Your task to perform on an android device: Set the phone to "Do not disturb". Image 0: 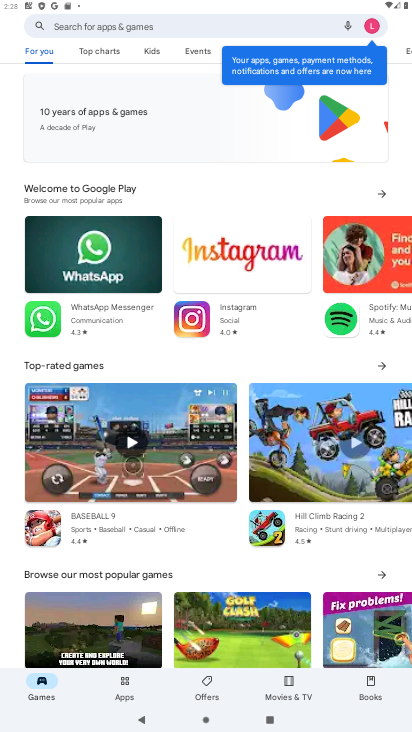
Step 0: press home button
Your task to perform on an android device: Set the phone to "Do not disturb". Image 1: 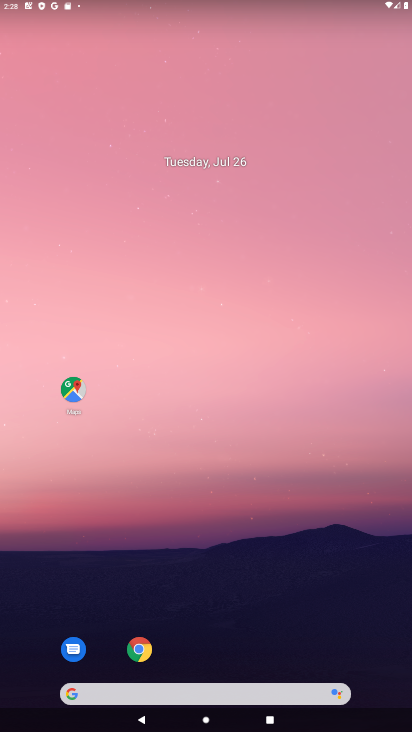
Step 1: drag from (181, 683) to (196, 206)
Your task to perform on an android device: Set the phone to "Do not disturb". Image 2: 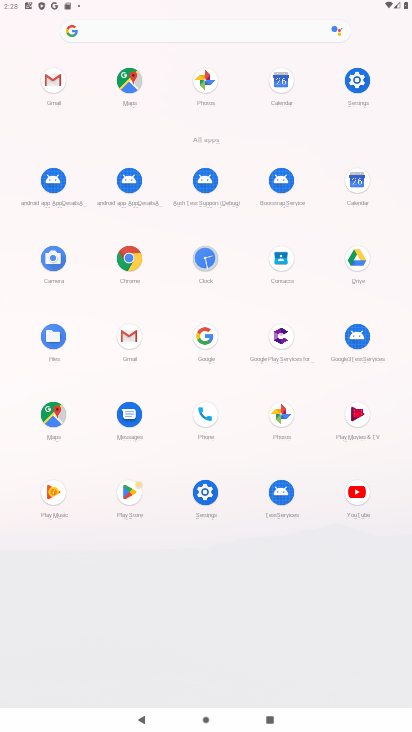
Step 2: click (217, 502)
Your task to perform on an android device: Set the phone to "Do not disturb". Image 3: 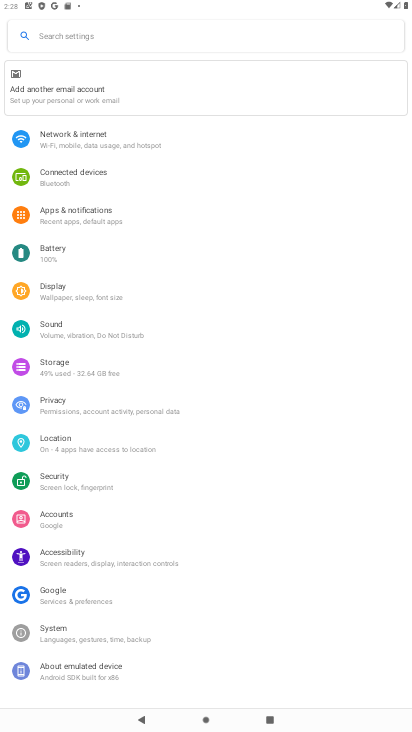
Step 3: click (76, 331)
Your task to perform on an android device: Set the phone to "Do not disturb". Image 4: 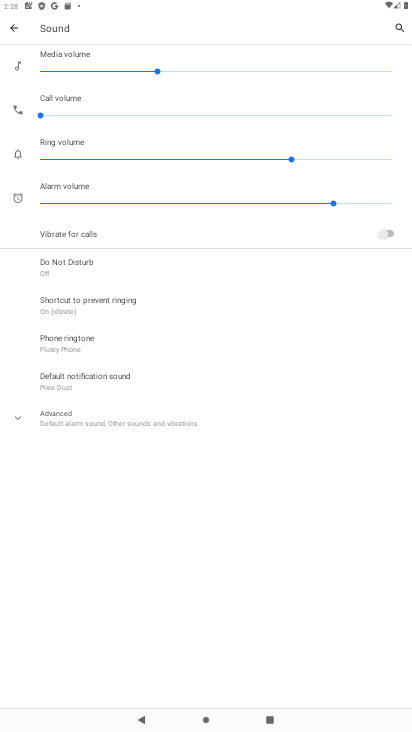
Step 4: click (254, 277)
Your task to perform on an android device: Set the phone to "Do not disturb". Image 5: 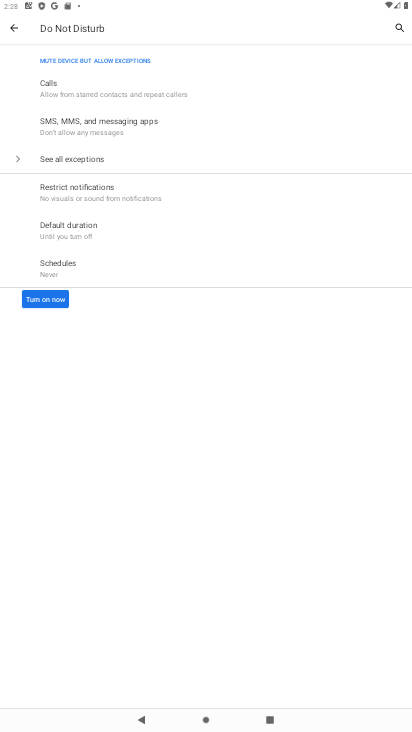
Step 5: click (47, 302)
Your task to perform on an android device: Set the phone to "Do not disturb". Image 6: 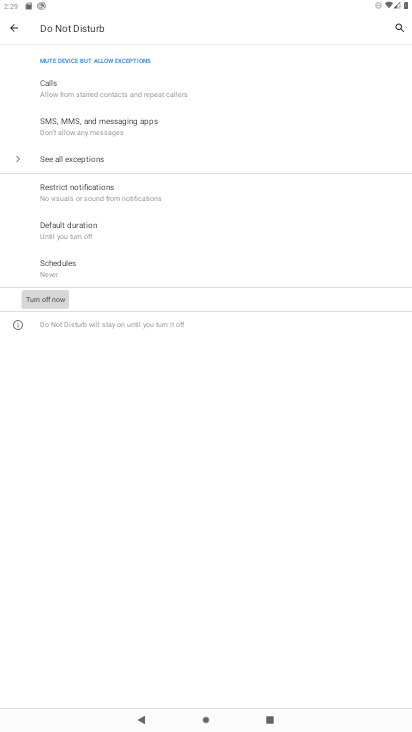
Step 6: task complete